Your task to perform on an android device: Open maps Image 0: 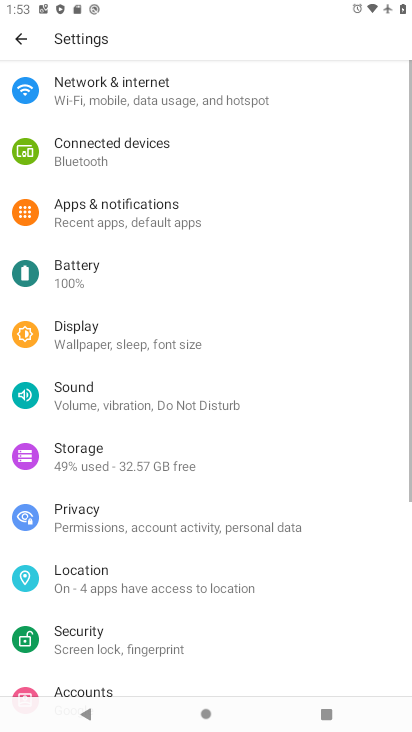
Step 0: press home button
Your task to perform on an android device: Open maps Image 1: 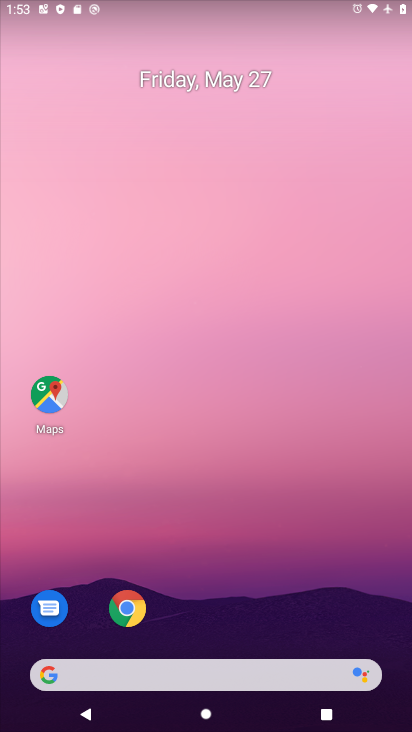
Step 1: click (48, 406)
Your task to perform on an android device: Open maps Image 2: 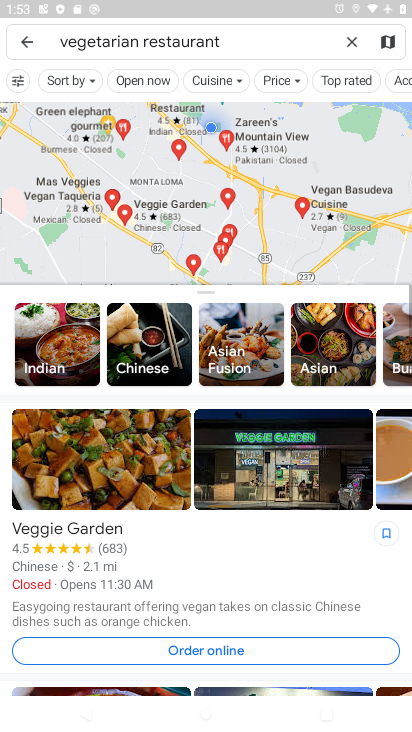
Step 2: click (28, 36)
Your task to perform on an android device: Open maps Image 3: 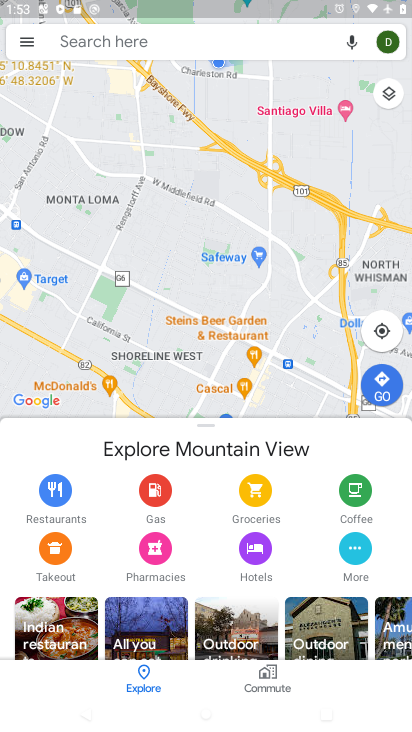
Step 3: task complete